Your task to perform on an android device: search for starred emails in the gmail app Image 0: 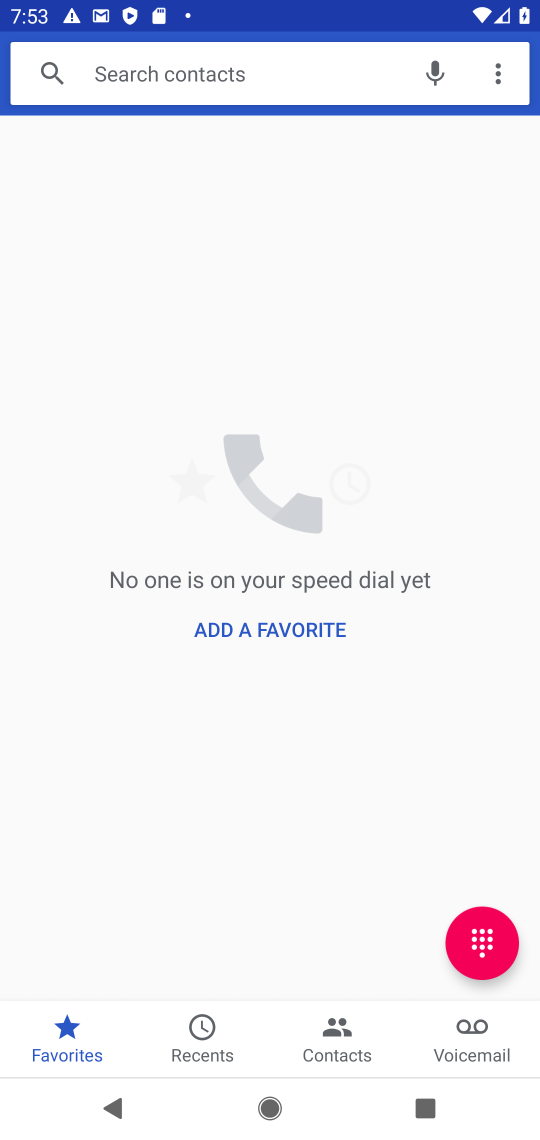
Step 0: press home button
Your task to perform on an android device: search for starred emails in the gmail app Image 1: 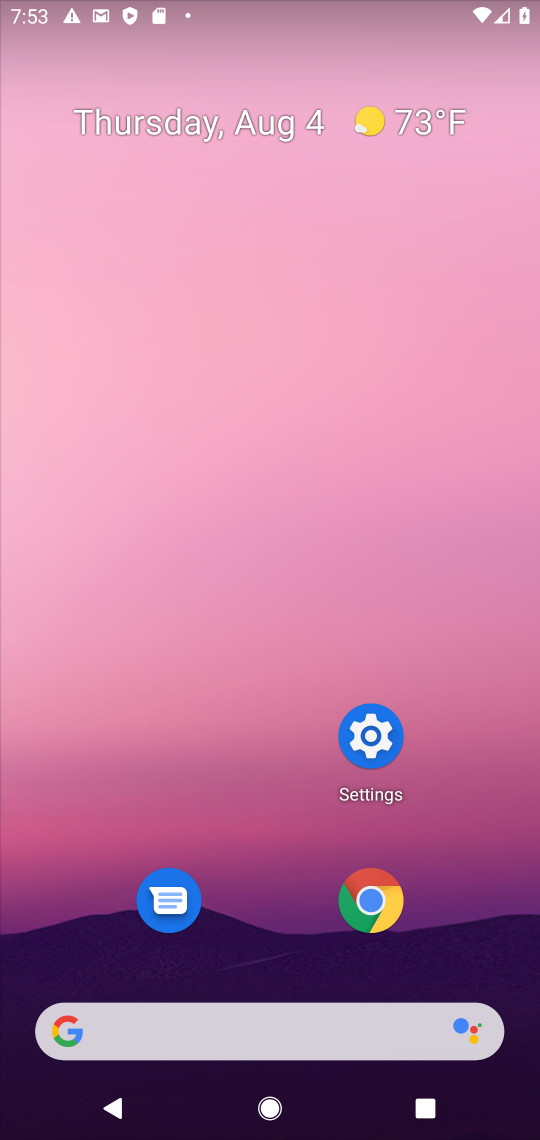
Step 1: drag from (279, 1021) to (375, 384)
Your task to perform on an android device: search for starred emails in the gmail app Image 2: 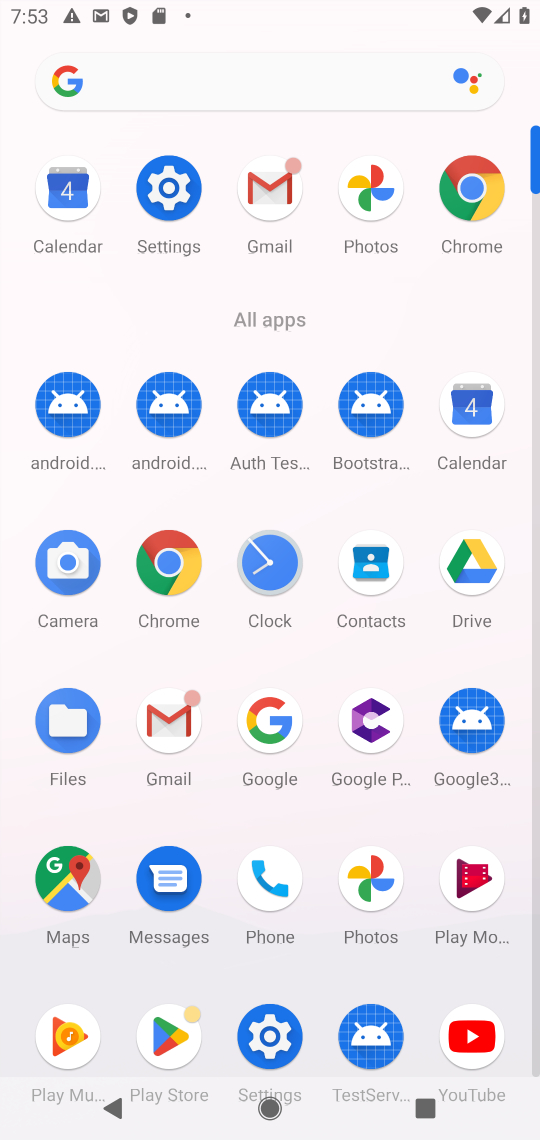
Step 2: click (282, 197)
Your task to perform on an android device: search for starred emails in the gmail app Image 3: 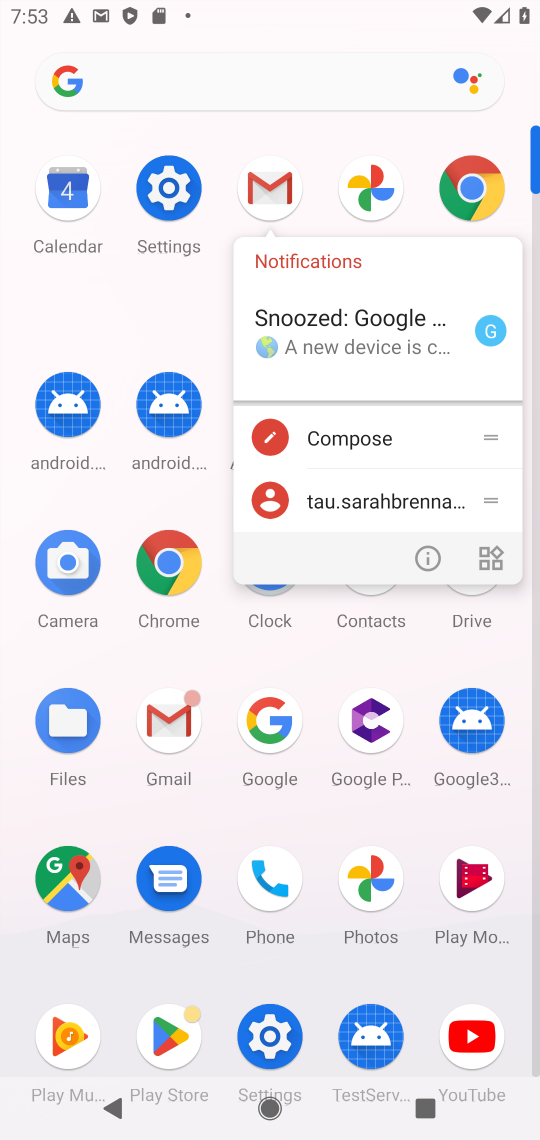
Step 3: click (273, 190)
Your task to perform on an android device: search for starred emails in the gmail app Image 4: 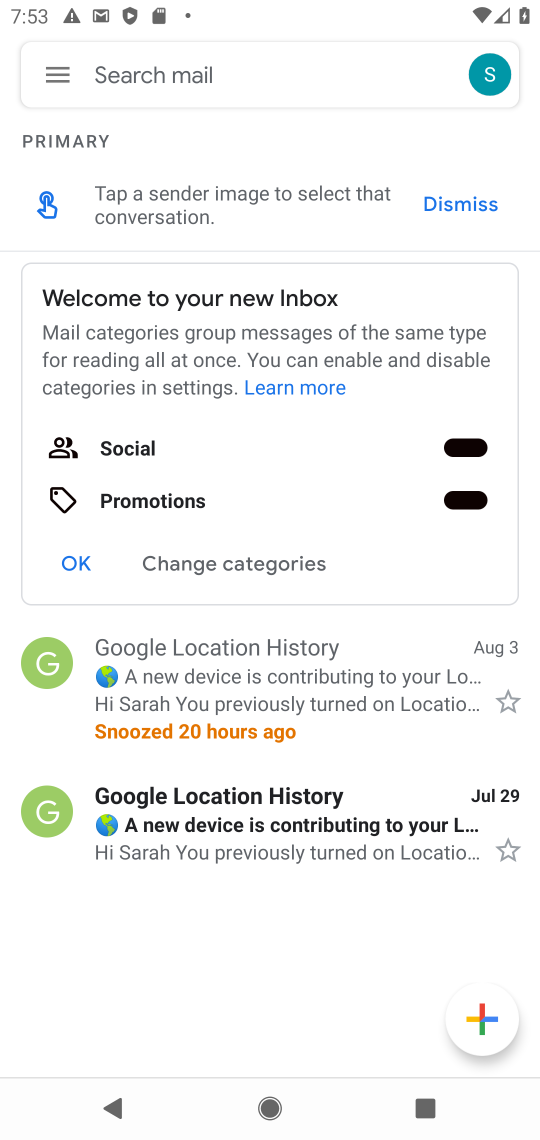
Step 4: click (58, 74)
Your task to perform on an android device: search for starred emails in the gmail app Image 5: 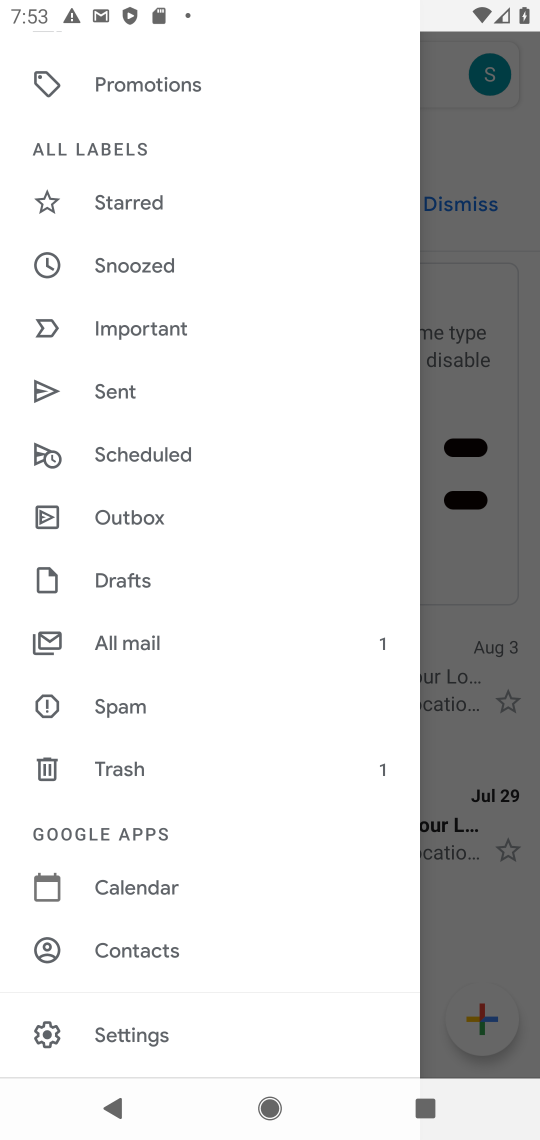
Step 5: click (140, 204)
Your task to perform on an android device: search for starred emails in the gmail app Image 6: 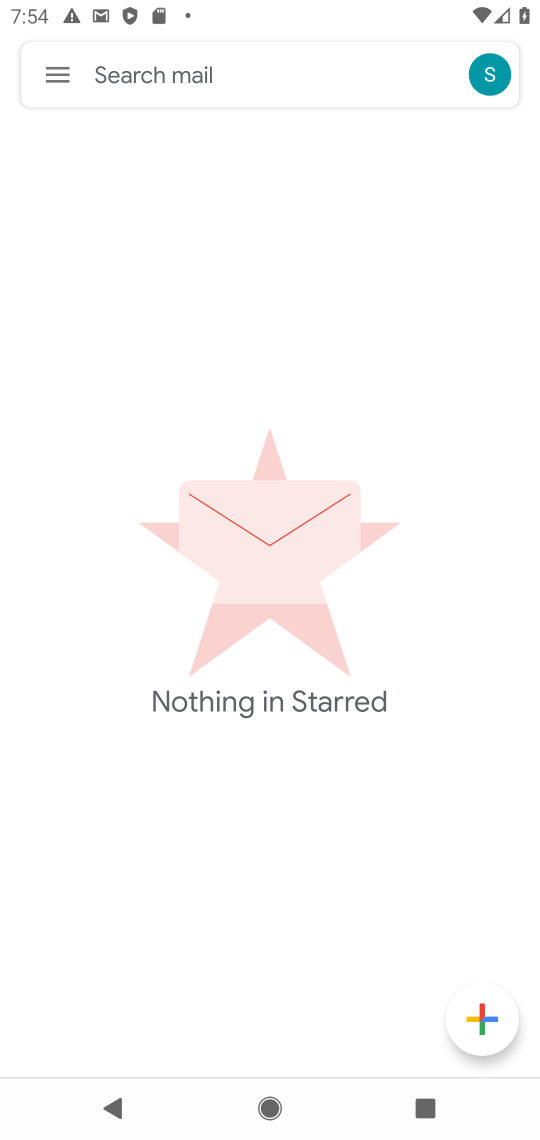
Step 6: task complete